Your task to perform on an android device: Open Google Chrome Image 0: 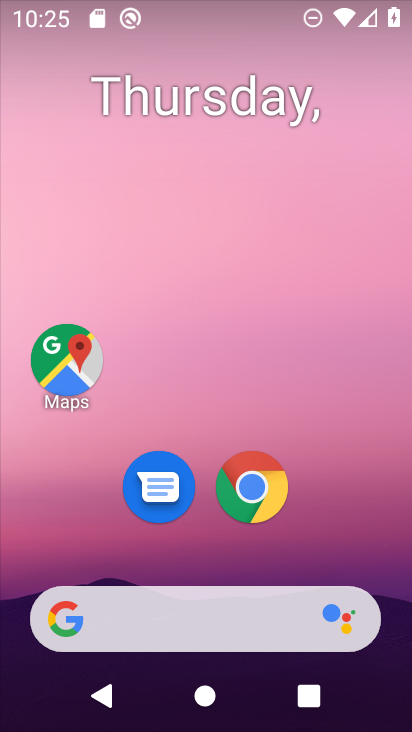
Step 0: click (263, 484)
Your task to perform on an android device: Open Google Chrome Image 1: 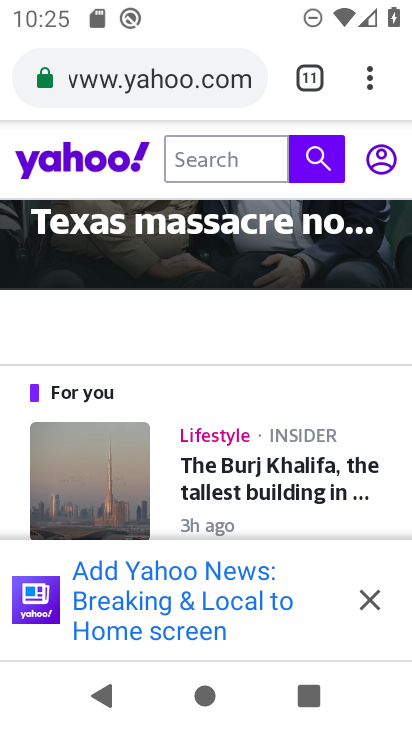
Step 1: click (373, 600)
Your task to perform on an android device: Open Google Chrome Image 2: 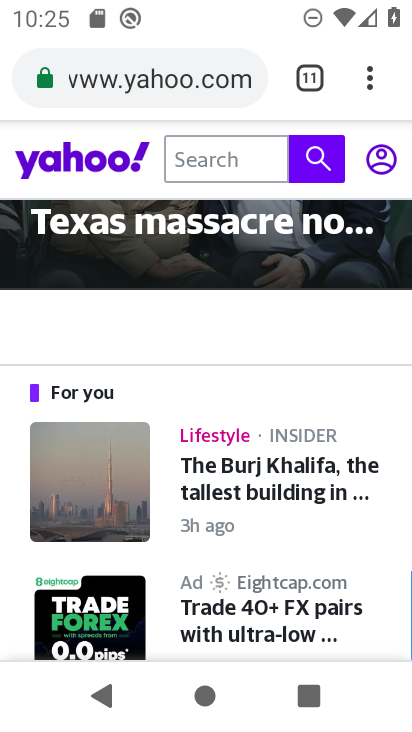
Step 2: task complete